Your task to perform on an android device: What's the weather going to be this weekend? Image 0: 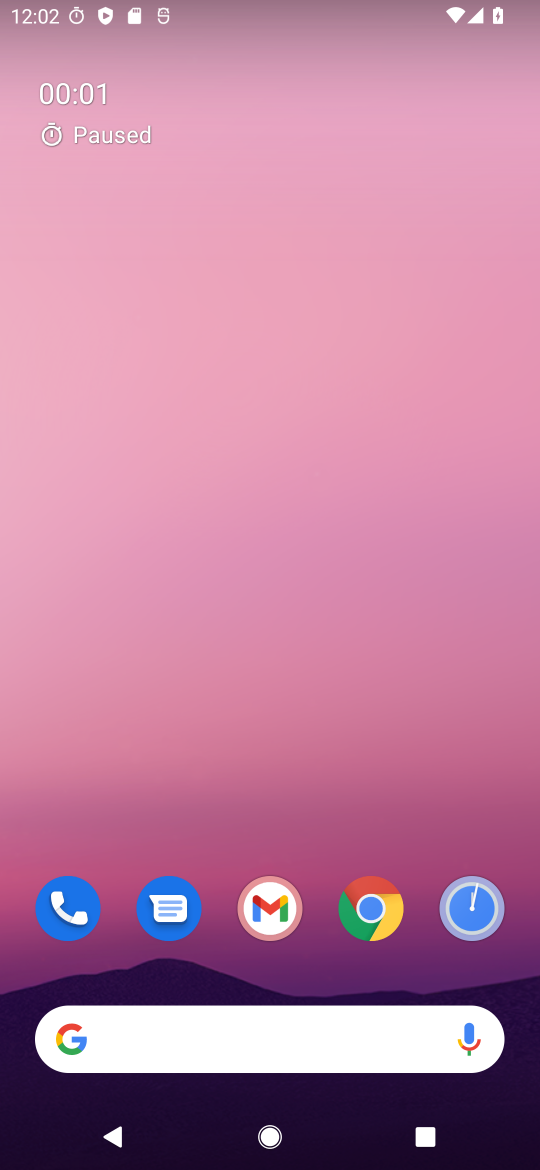
Step 0: drag from (404, 833) to (440, 167)
Your task to perform on an android device: What's the weather going to be this weekend? Image 1: 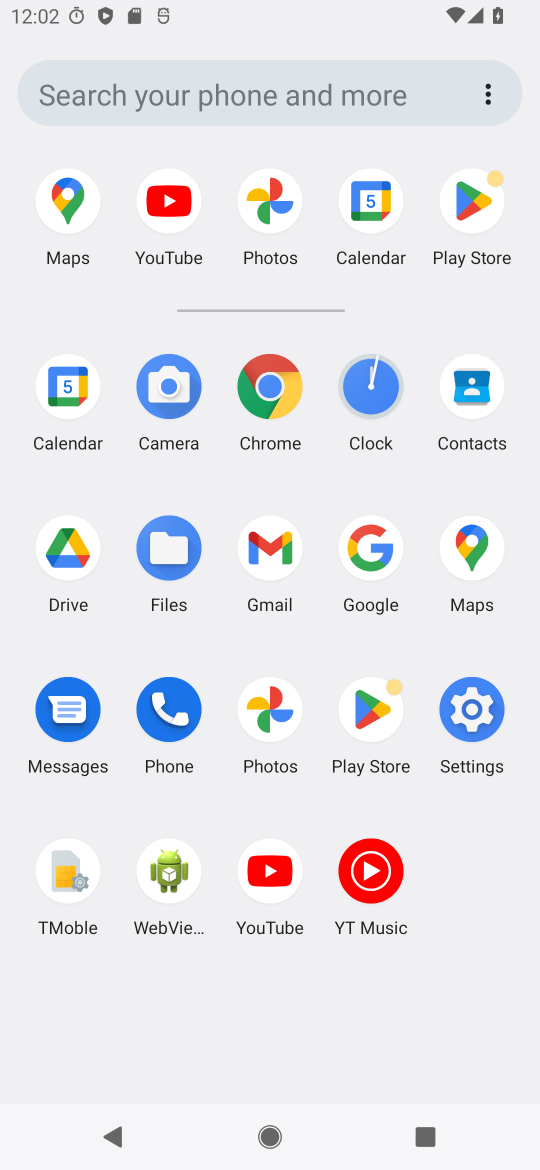
Step 1: click (265, 381)
Your task to perform on an android device: What's the weather going to be this weekend? Image 2: 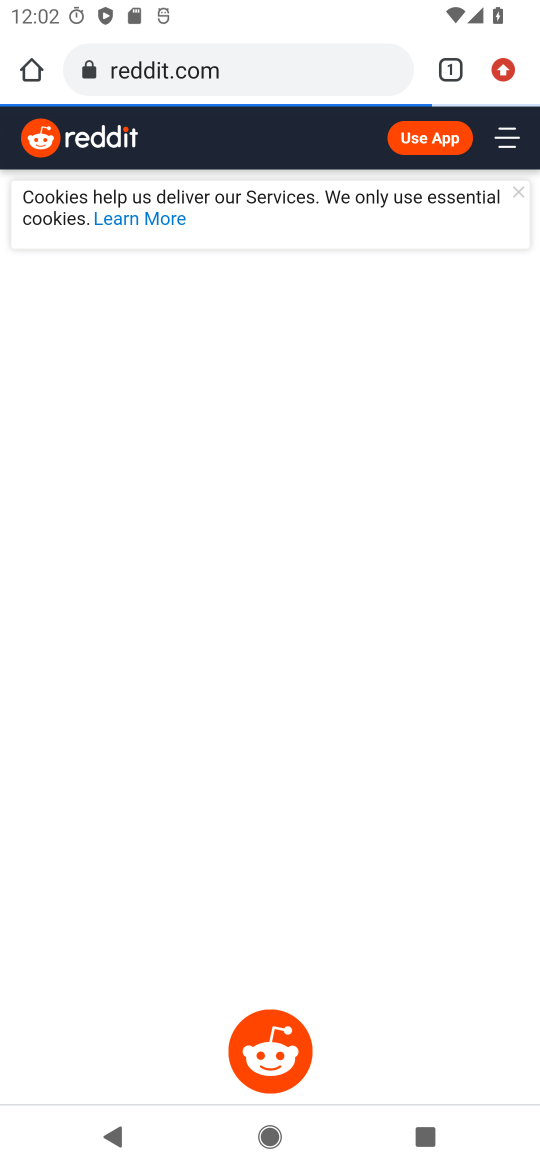
Step 2: click (295, 79)
Your task to perform on an android device: What's the weather going to be this weekend? Image 3: 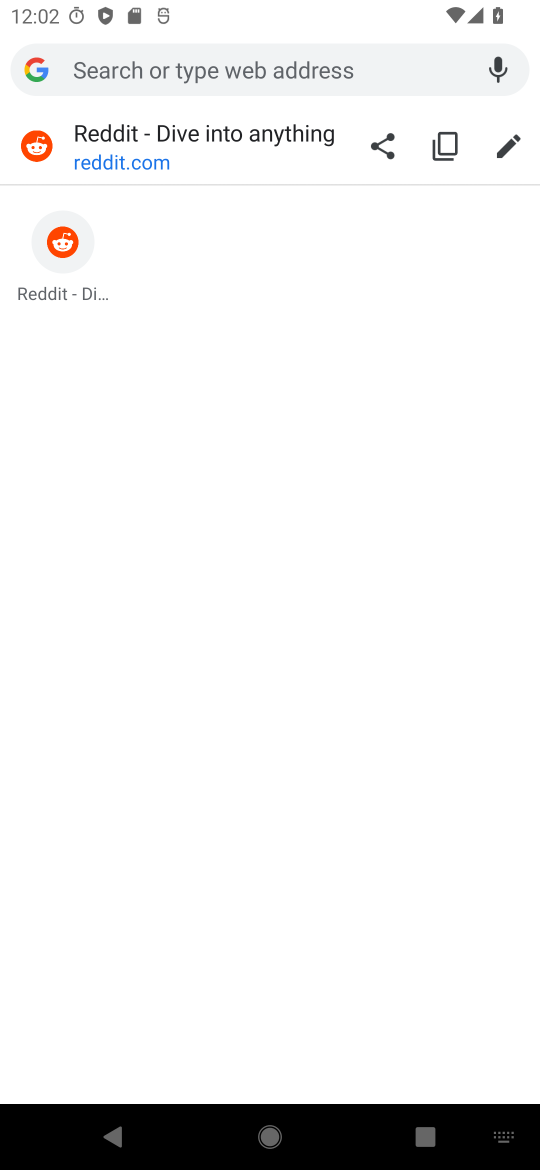
Step 3: type "weather"
Your task to perform on an android device: What's the weather going to be this weekend? Image 4: 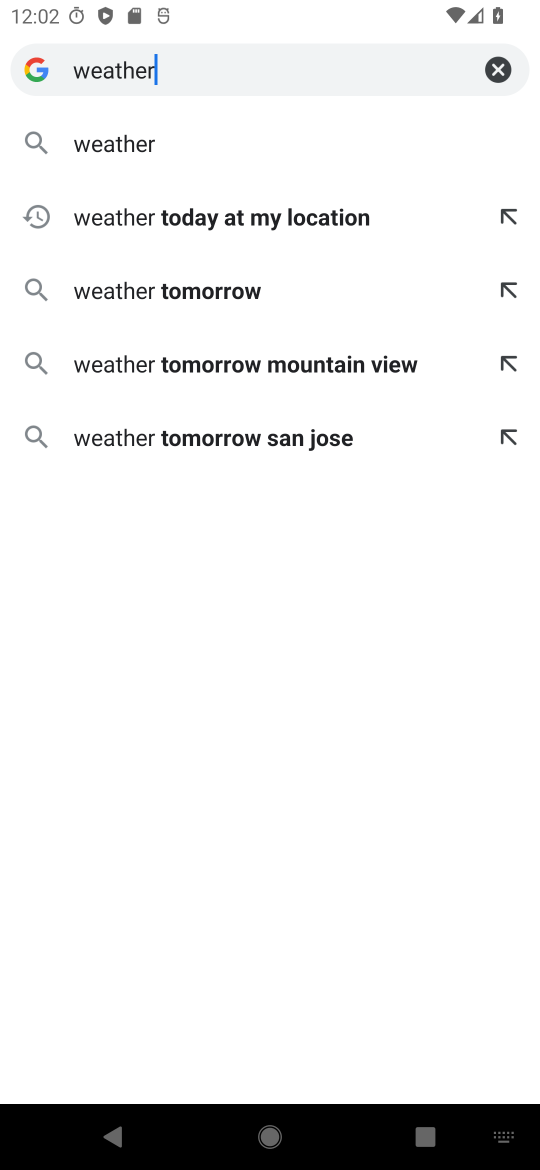
Step 4: click (111, 142)
Your task to perform on an android device: What's the weather going to be this weekend? Image 5: 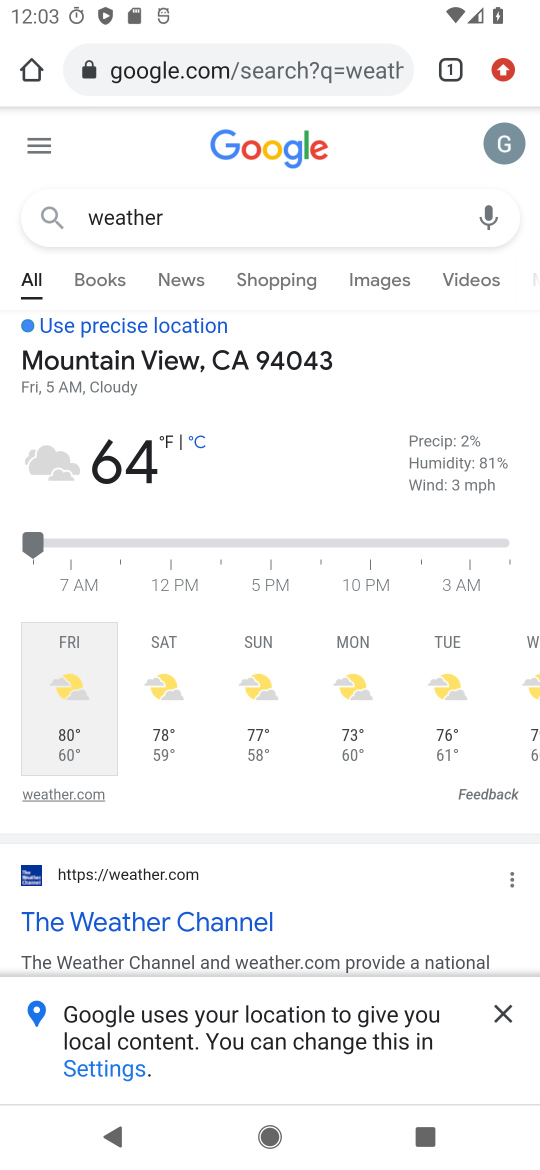
Step 5: click (175, 674)
Your task to perform on an android device: What's the weather going to be this weekend? Image 6: 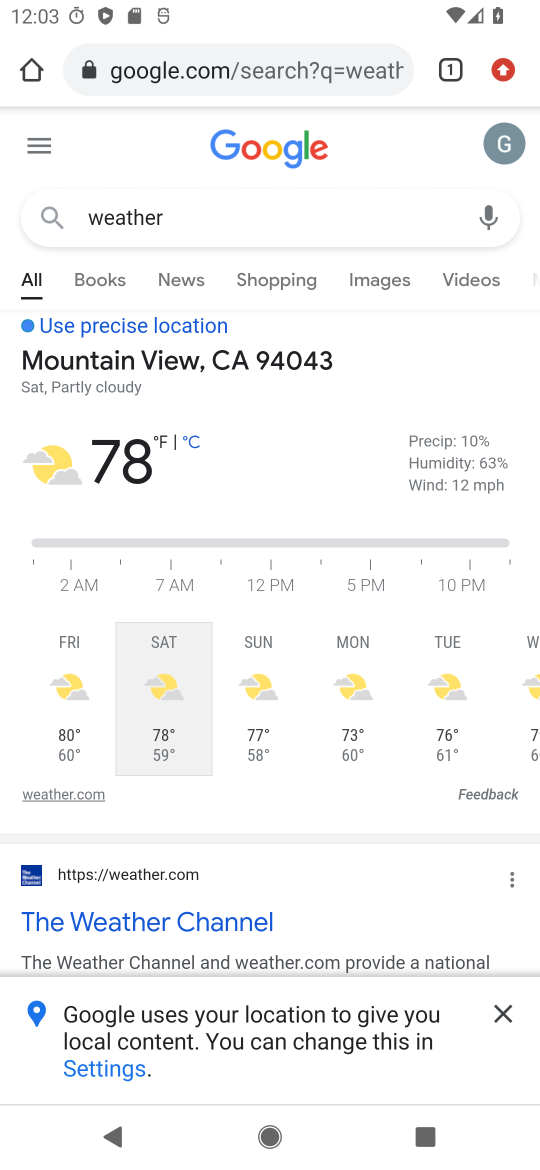
Step 6: task complete